Your task to perform on an android device: turn on showing notifications on the lock screen Image 0: 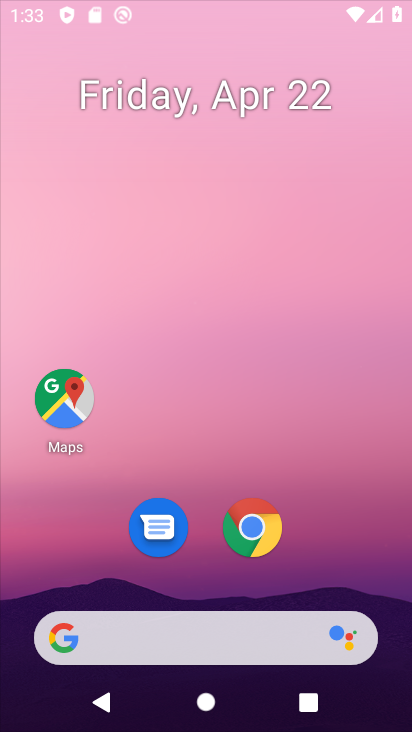
Step 0: click (248, 53)
Your task to perform on an android device: turn on showing notifications on the lock screen Image 1: 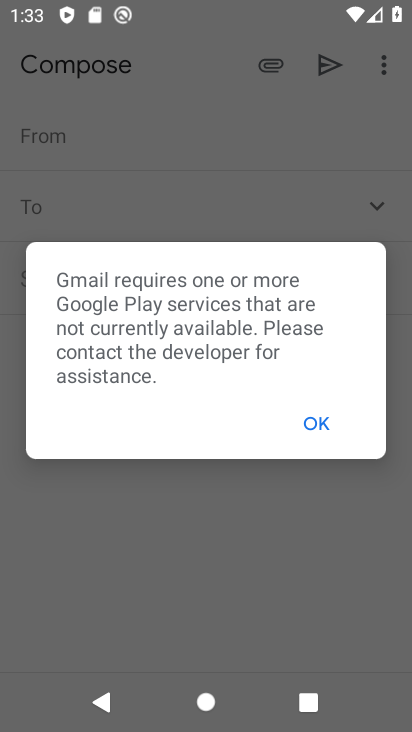
Step 1: press home button
Your task to perform on an android device: turn on showing notifications on the lock screen Image 2: 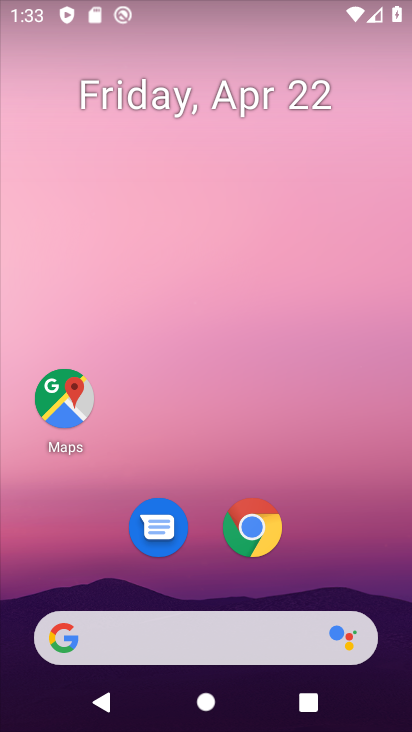
Step 2: drag from (351, 573) to (283, 61)
Your task to perform on an android device: turn on showing notifications on the lock screen Image 3: 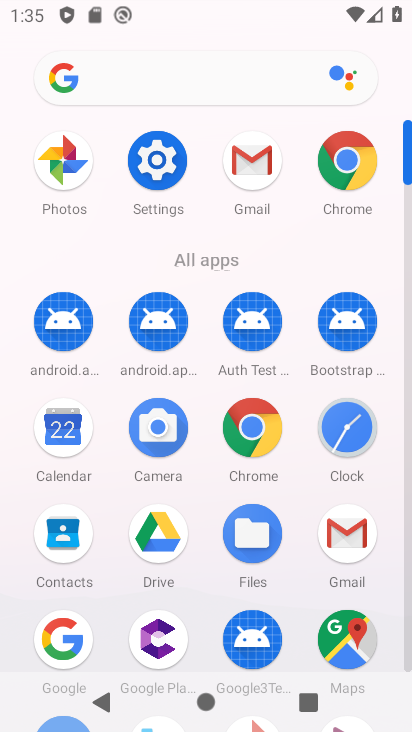
Step 3: click (148, 178)
Your task to perform on an android device: turn on showing notifications on the lock screen Image 4: 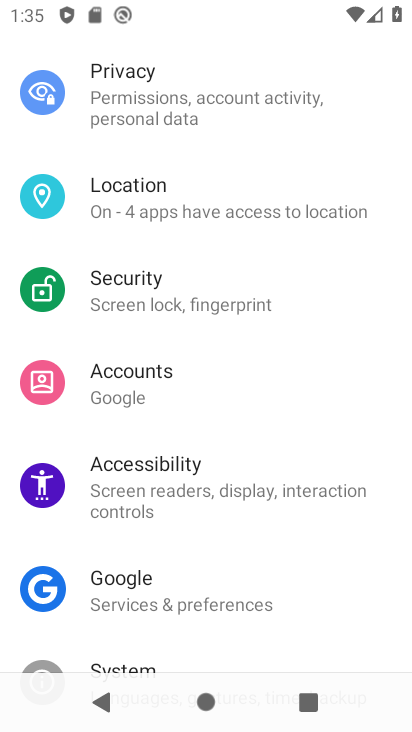
Step 4: drag from (265, 171) to (301, 560)
Your task to perform on an android device: turn on showing notifications on the lock screen Image 5: 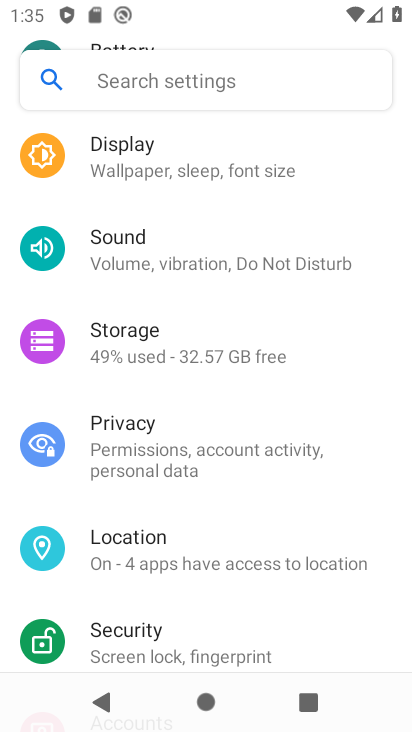
Step 5: drag from (242, 223) to (270, 557)
Your task to perform on an android device: turn on showing notifications on the lock screen Image 6: 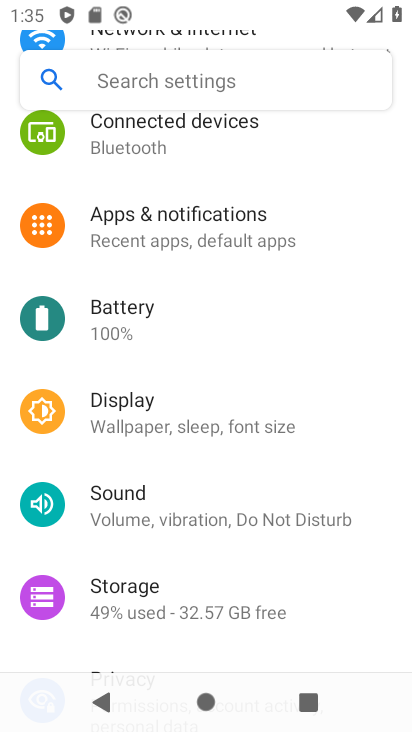
Step 6: click (206, 242)
Your task to perform on an android device: turn on showing notifications on the lock screen Image 7: 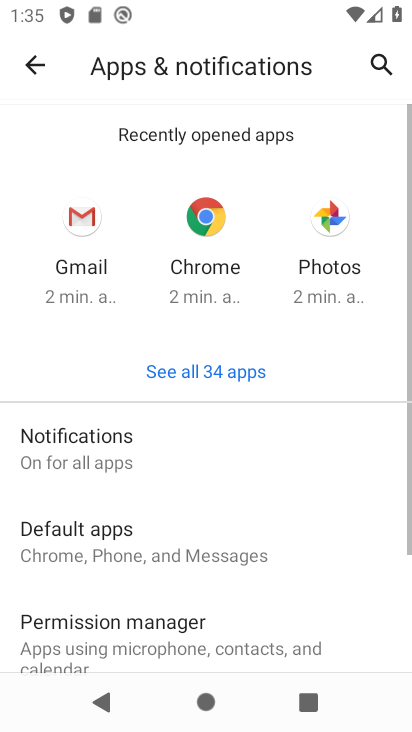
Step 7: click (213, 441)
Your task to perform on an android device: turn on showing notifications on the lock screen Image 8: 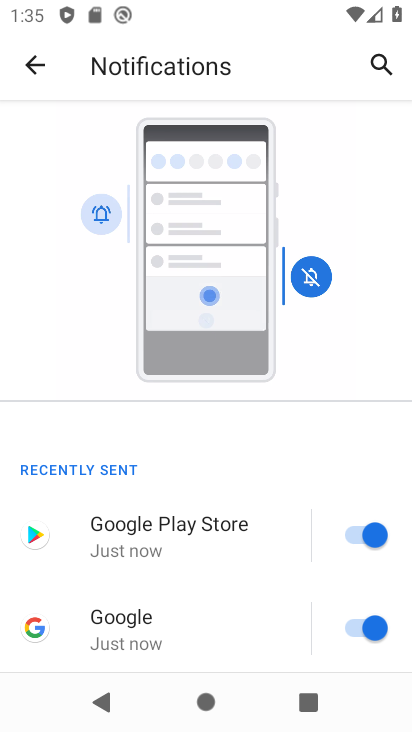
Step 8: drag from (211, 646) to (222, 14)
Your task to perform on an android device: turn on showing notifications on the lock screen Image 9: 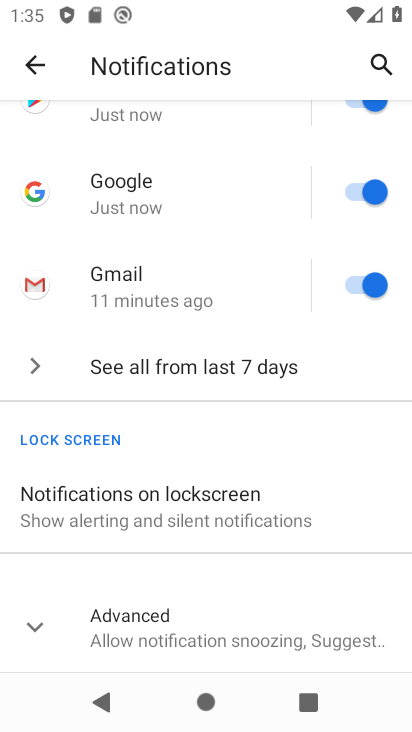
Step 9: click (180, 517)
Your task to perform on an android device: turn on showing notifications on the lock screen Image 10: 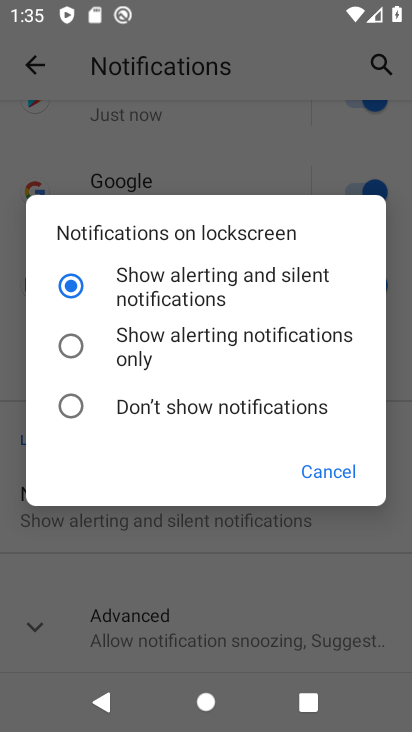
Step 10: task complete